Your task to perform on an android device: set the timer Image 0: 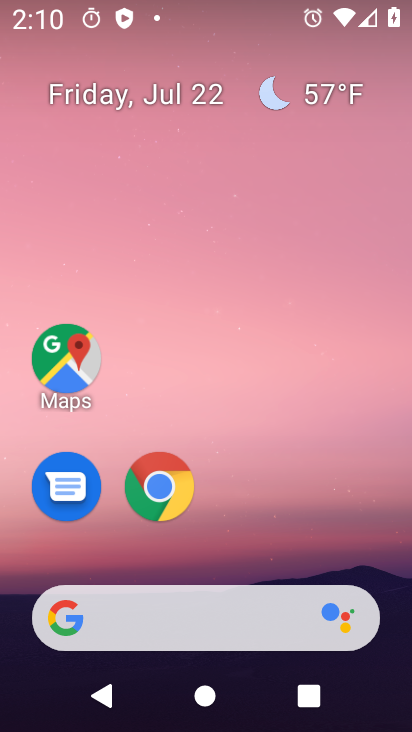
Step 0: press home button
Your task to perform on an android device: set the timer Image 1: 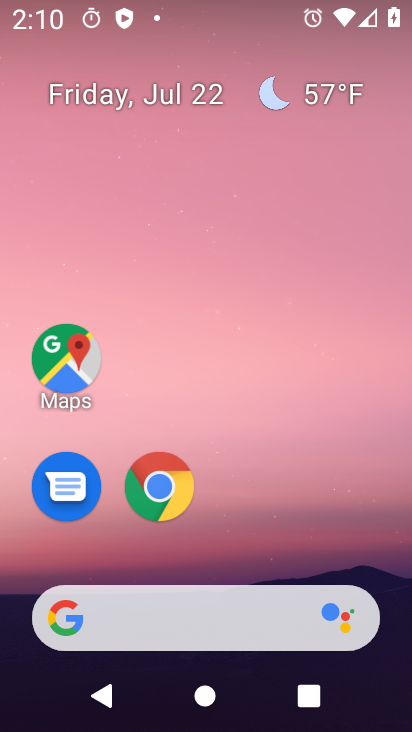
Step 1: drag from (380, 537) to (363, 148)
Your task to perform on an android device: set the timer Image 2: 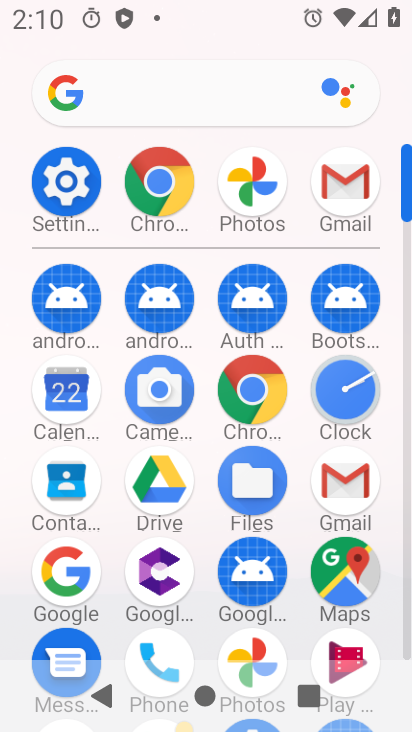
Step 2: click (347, 381)
Your task to perform on an android device: set the timer Image 3: 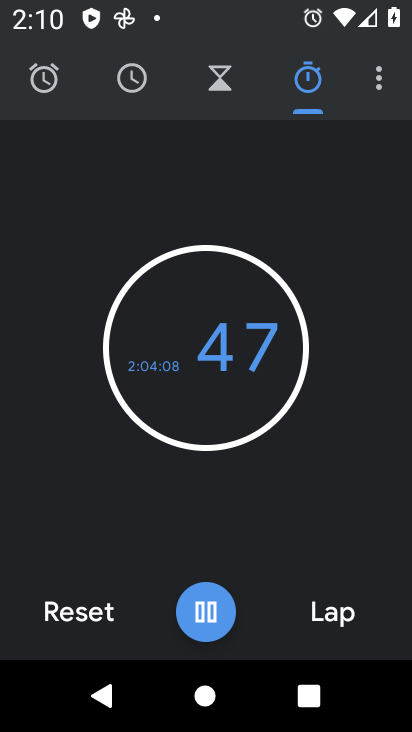
Step 3: click (208, 81)
Your task to perform on an android device: set the timer Image 4: 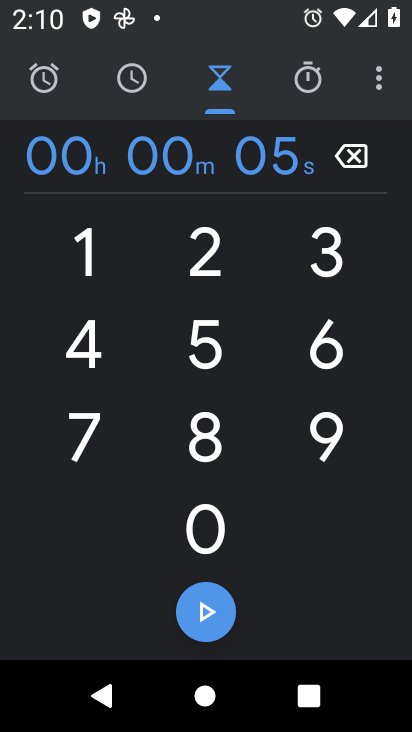
Step 4: click (217, 337)
Your task to perform on an android device: set the timer Image 5: 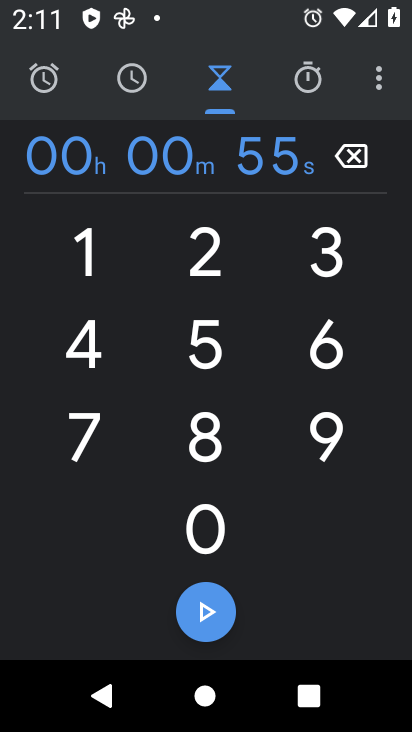
Step 5: task complete